Your task to perform on an android device: Go to location settings Image 0: 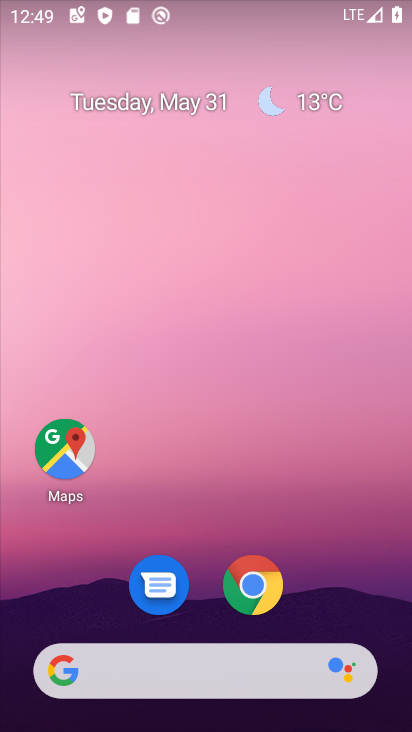
Step 0: drag from (201, 466) to (175, 25)
Your task to perform on an android device: Go to location settings Image 1: 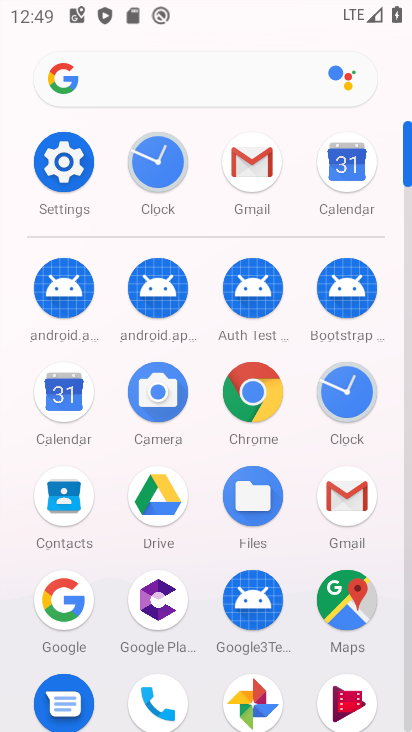
Step 1: click (69, 176)
Your task to perform on an android device: Go to location settings Image 2: 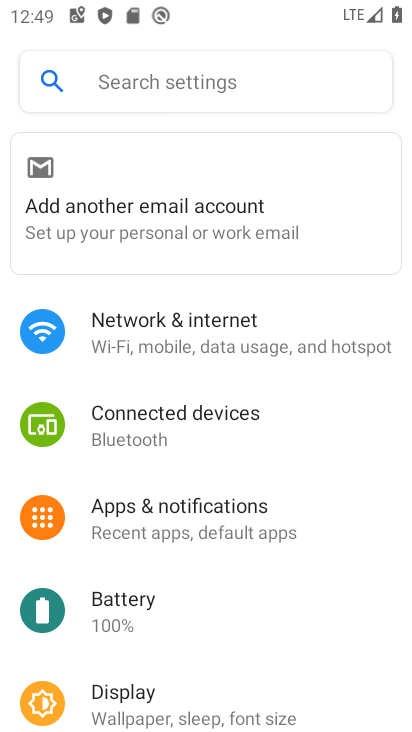
Step 2: drag from (212, 644) to (234, 198)
Your task to perform on an android device: Go to location settings Image 3: 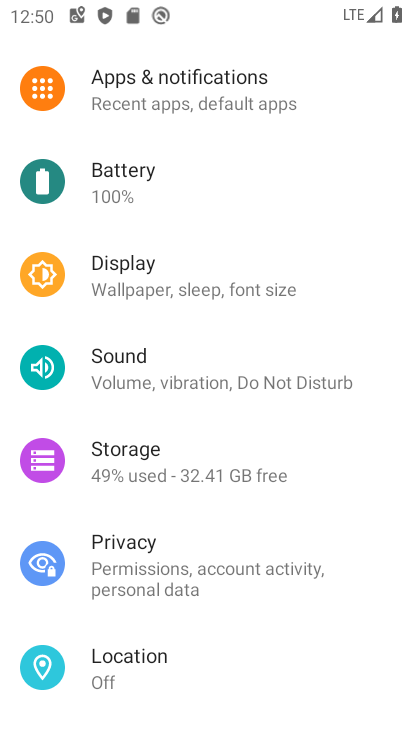
Step 3: click (218, 657)
Your task to perform on an android device: Go to location settings Image 4: 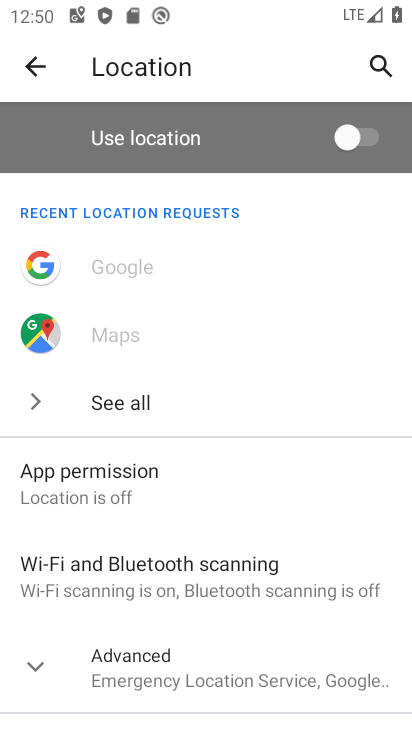
Step 4: task complete